Your task to perform on an android device: make emails show in primary in the gmail app Image 0: 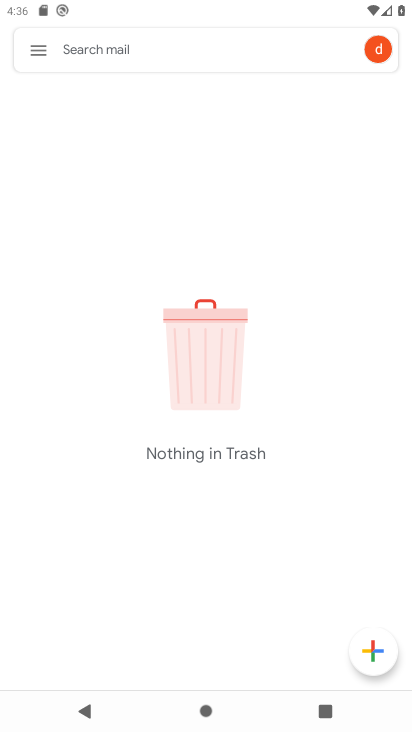
Step 0: click (27, 36)
Your task to perform on an android device: make emails show in primary in the gmail app Image 1: 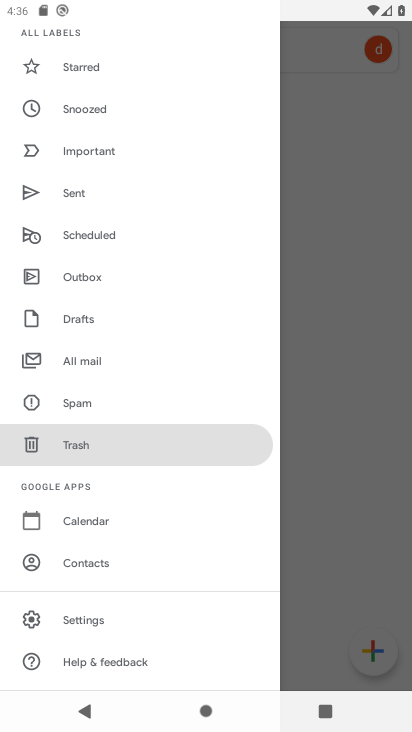
Step 1: drag from (186, 155) to (191, 614)
Your task to perform on an android device: make emails show in primary in the gmail app Image 2: 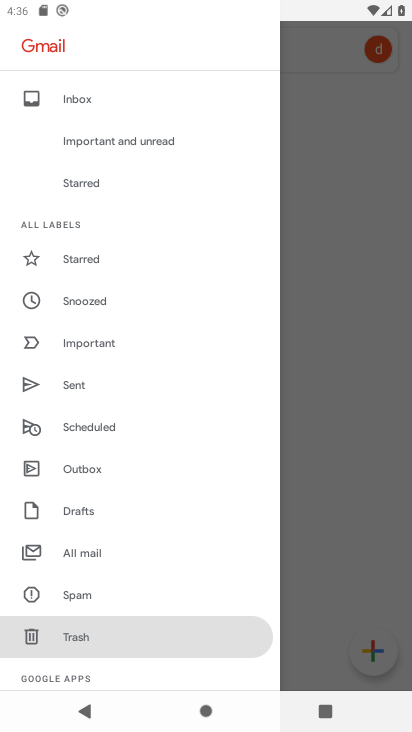
Step 2: drag from (157, 568) to (189, 90)
Your task to perform on an android device: make emails show in primary in the gmail app Image 3: 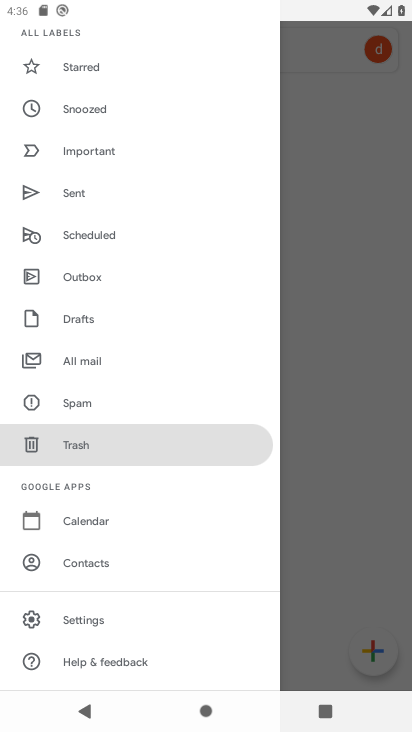
Step 3: click (102, 615)
Your task to perform on an android device: make emails show in primary in the gmail app Image 4: 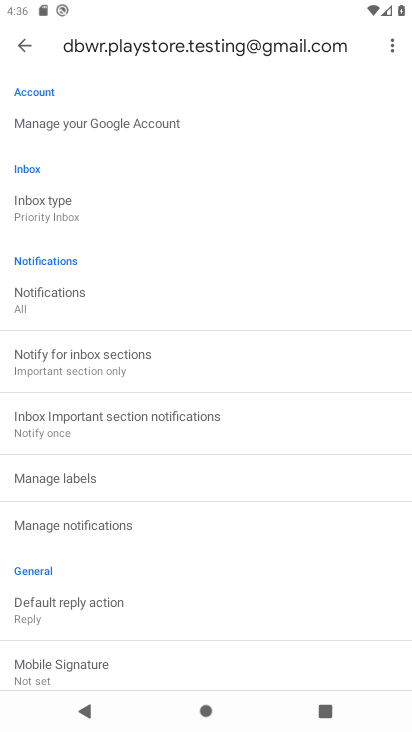
Step 4: click (87, 206)
Your task to perform on an android device: make emails show in primary in the gmail app Image 5: 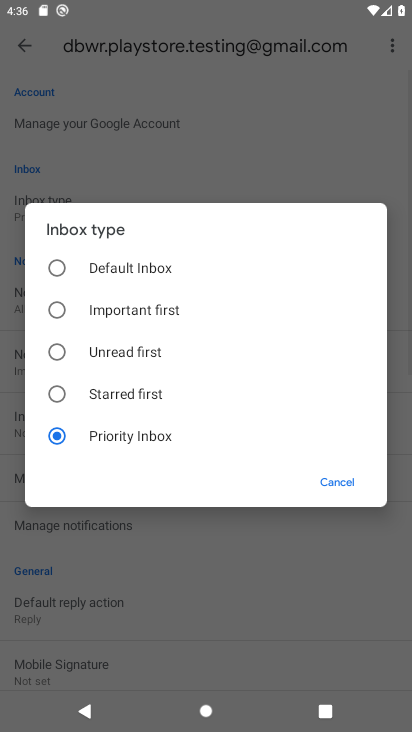
Step 5: click (127, 265)
Your task to perform on an android device: make emails show in primary in the gmail app Image 6: 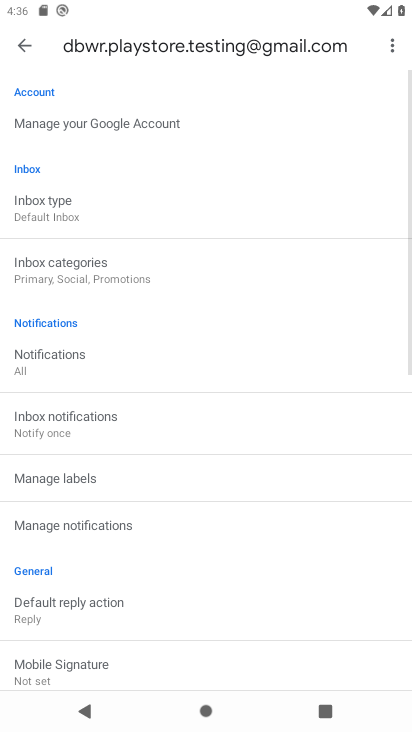
Step 6: click (101, 282)
Your task to perform on an android device: make emails show in primary in the gmail app Image 7: 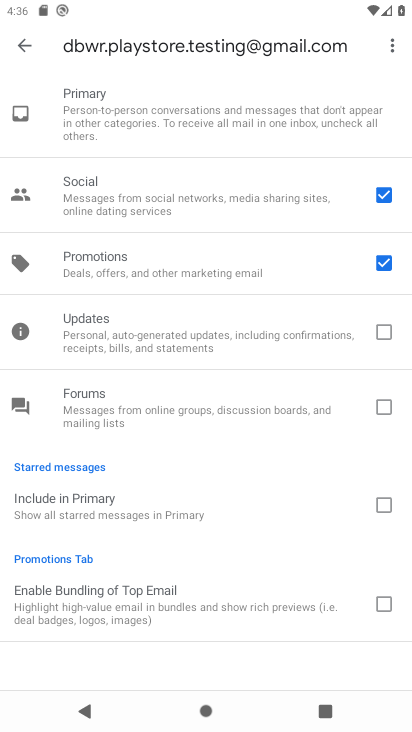
Step 7: click (372, 264)
Your task to perform on an android device: make emails show in primary in the gmail app Image 8: 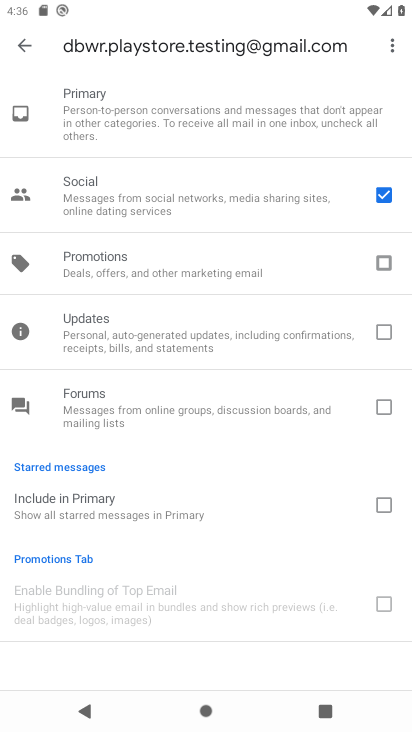
Step 8: click (386, 193)
Your task to perform on an android device: make emails show in primary in the gmail app Image 9: 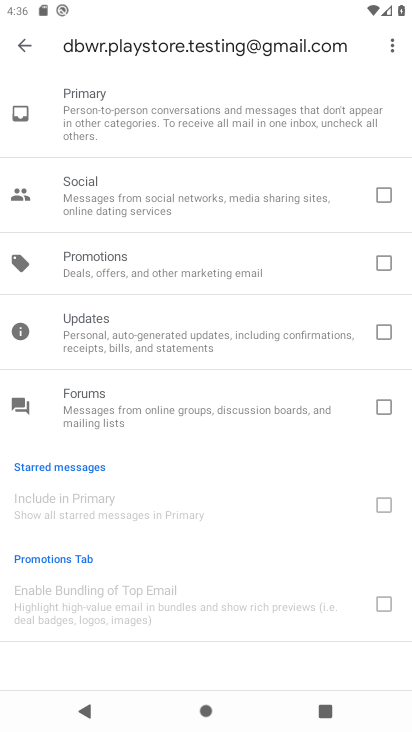
Step 9: click (22, 44)
Your task to perform on an android device: make emails show in primary in the gmail app Image 10: 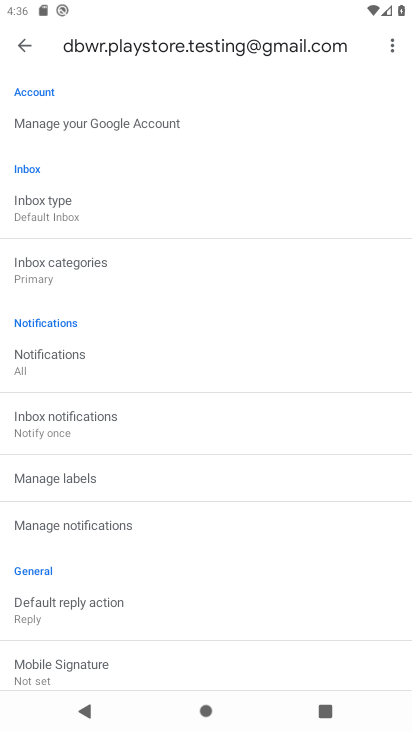
Step 10: task complete